Your task to perform on an android device: Go to Amazon Image 0: 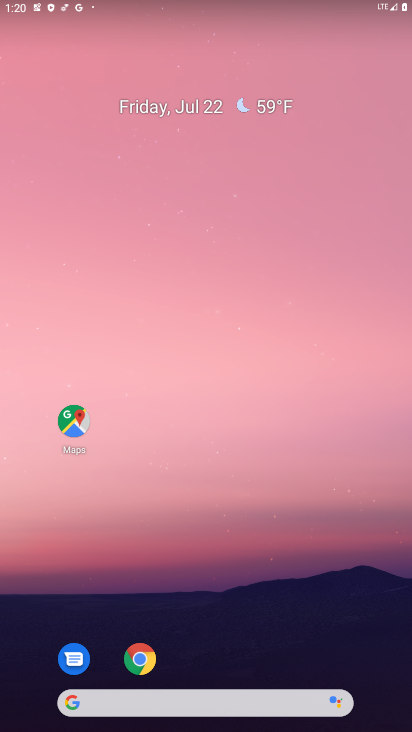
Step 0: drag from (285, 641) to (231, 259)
Your task to perform on an android device: Go to Amazon Image 1: 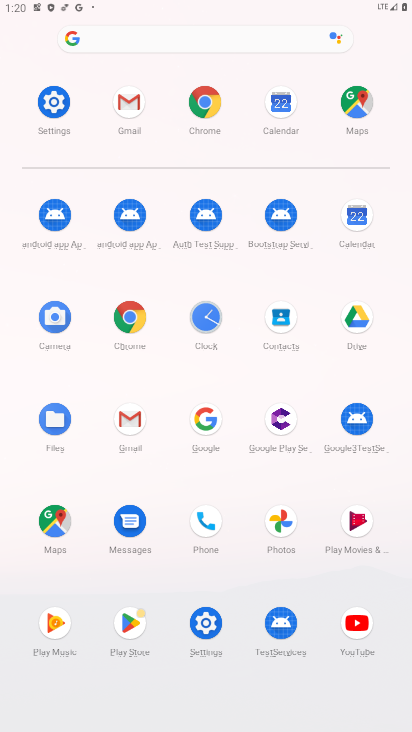
Step 1: click (136, 314)
Your task to perform on an android device: Go to Amazon Image 2: 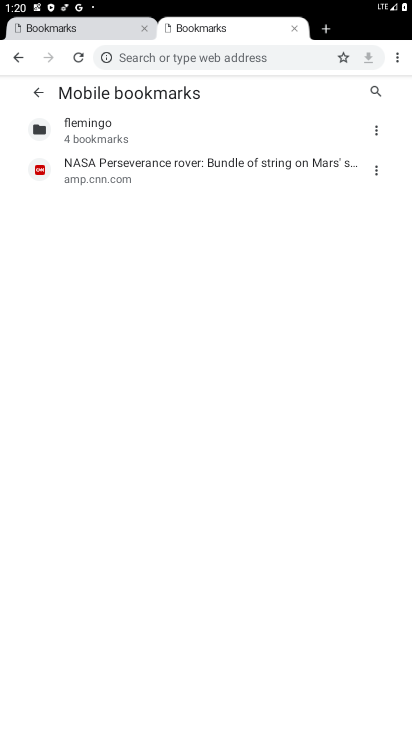
Step 2: click (16, 50)
Your task to perform on an android device: Go to Amazon Image 3: 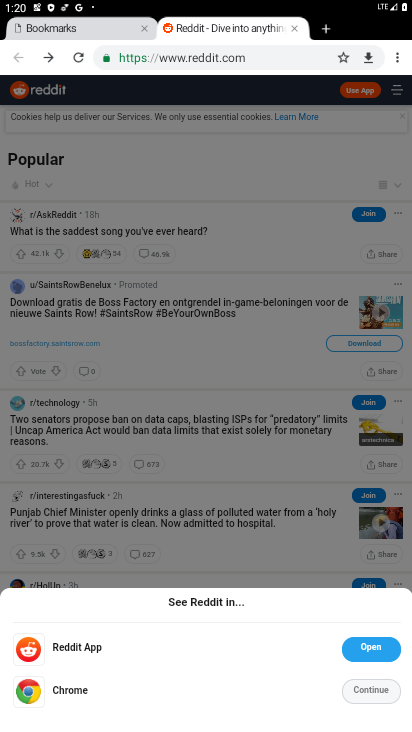
Step 3: click (298, 28)
Your task to perform on an android device: Go to Amazon Image 4: 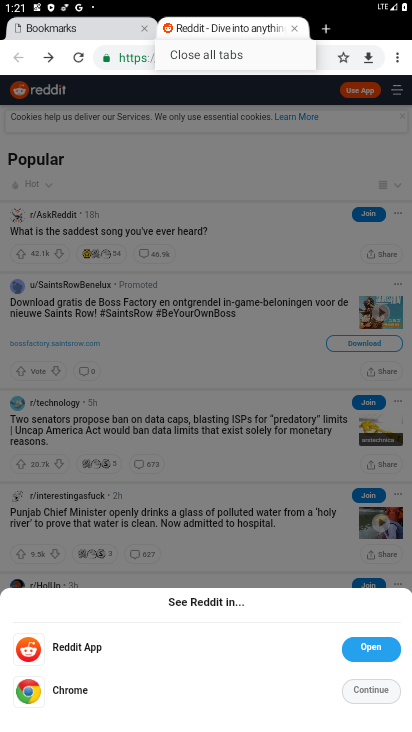
Step 4: click (295, 28)
Your task to perform on an android device: Go to Amazon Image 5: 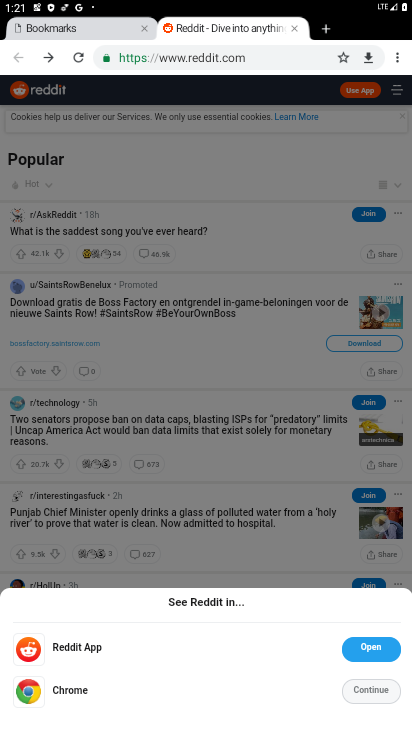
Step 5: click (334, 29)
Your task to perform on an android device: Go to Amazon Image 6: 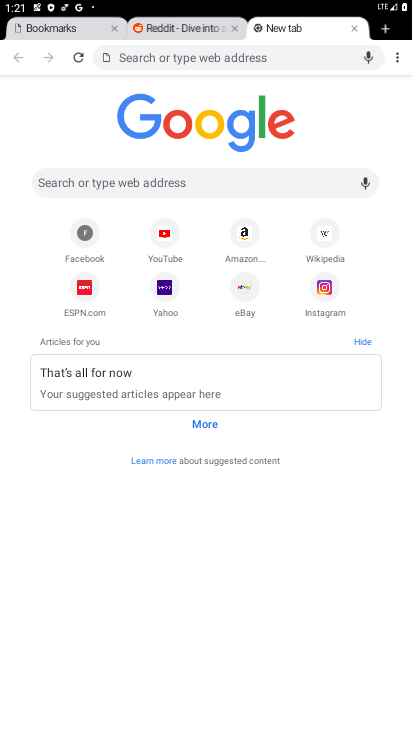
Step 6: click (246, 248)
Your task to perform on an android device: Go to Amazon Image 7: 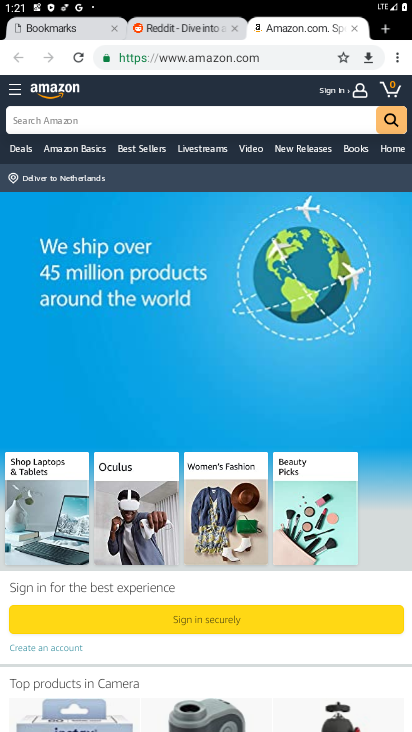
Step 7: task complete